Your task to perform on an android device: Go to eBay Image 0: 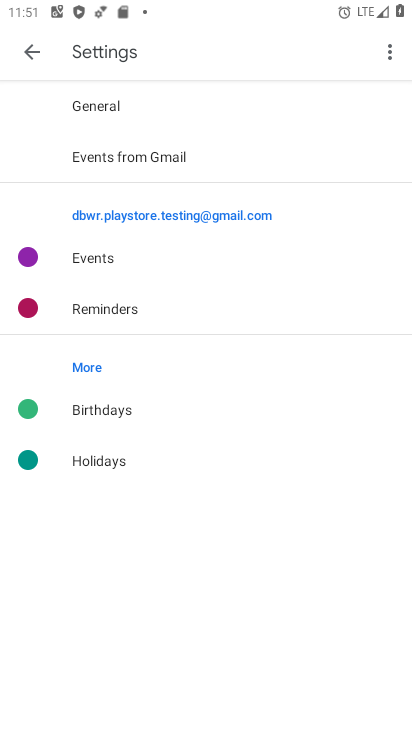
Step 0: press home button
Your task to perform on an android device: Go to eBay Image 1: 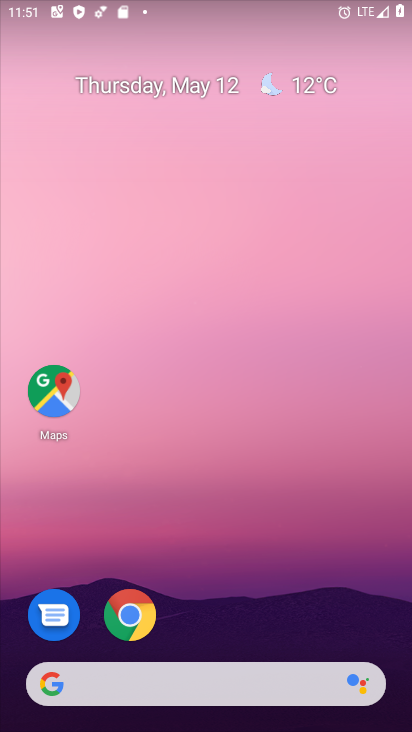
Step 1: click (294, 696)
Your task to perform on an android device: Go to eBay Image 2: 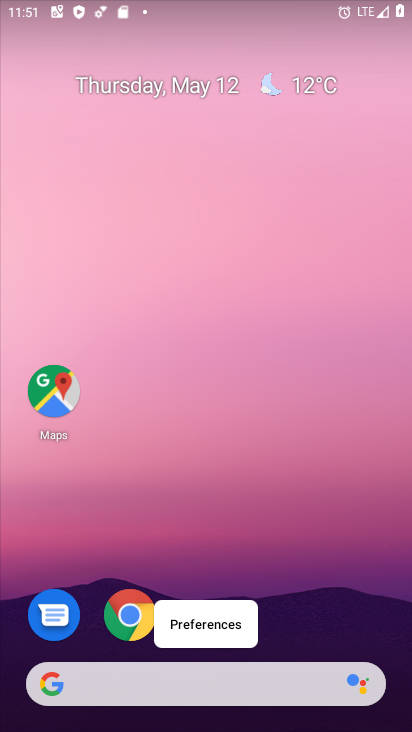
Step 2: click (296, 680)
Your task to perform on an android device: Go to eBay Image 3: 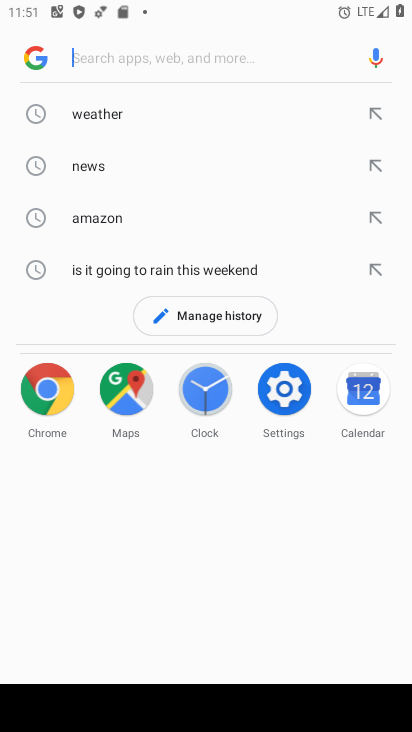
Step 3: type "ebay"
Your task to perform on an android device: Go to eBay Image 4: 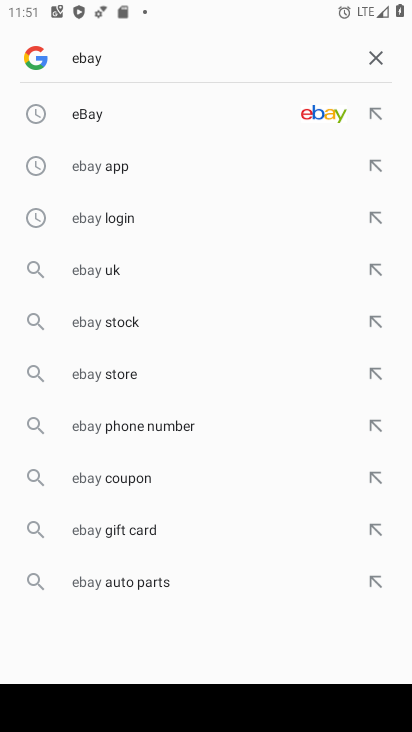
Step 4: click (93, 118)
Your task to perform on an android device: Go to eBay Image 5: 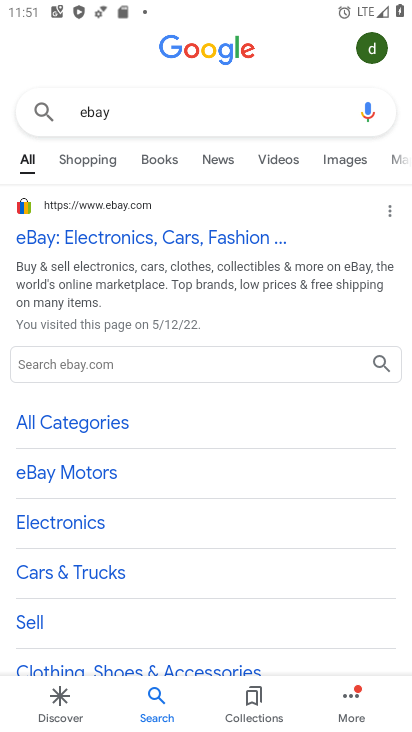
Step 5: click (66, 231)
Your task to perform on an android device: Go to eBay Image 6: 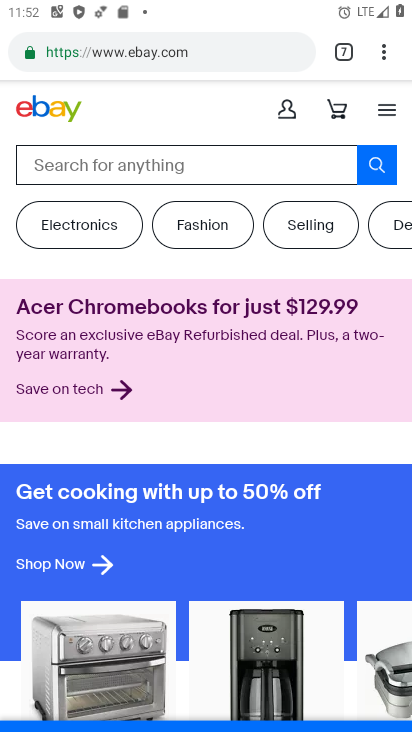
Step 6: task complete